Your task to perform on an android device: Show me the alarms in the clock app Image 0: 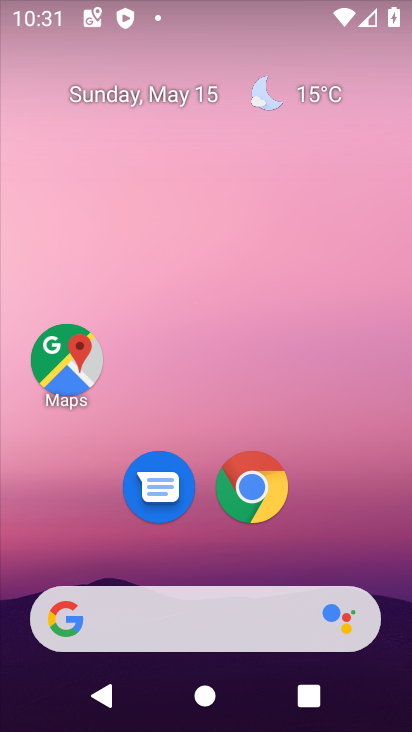
Step 0: click (335, 17)
Your task to perform on an android device: Show me the alarms in the clock app Image 1: 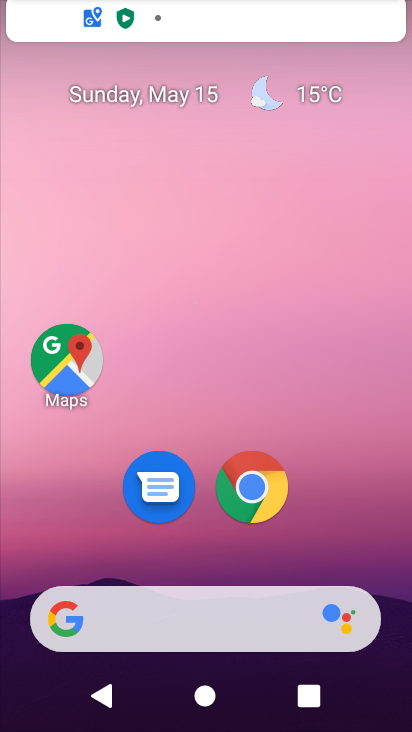
Step 1: drag from (395, 630) to (364, 122)
Your task to perform on an android device: Show me the alarms in the clock app Image 2: 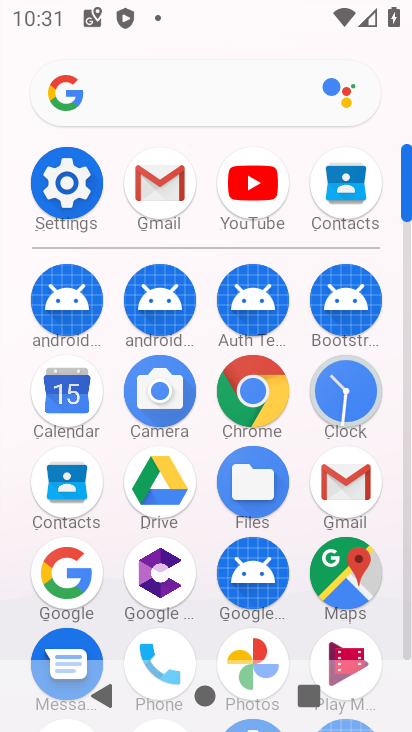
Step 2: click (408, 638)
Your task to perform on an android device: Show me the alarms in the clock app Image 3: 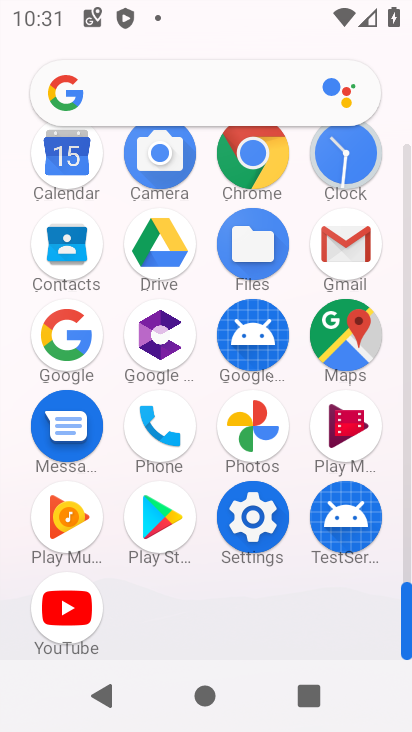
Step 3: click (340, 155)
Your task to perform on an android device: Show me the alarms in the clock app Image 4: 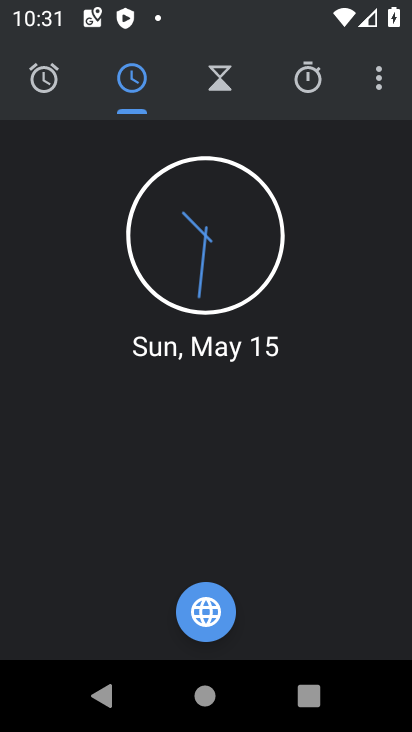
Step 4: click (39, 74)
Your task to perform on an android device: Show me the alarms in the clock app Image 5: 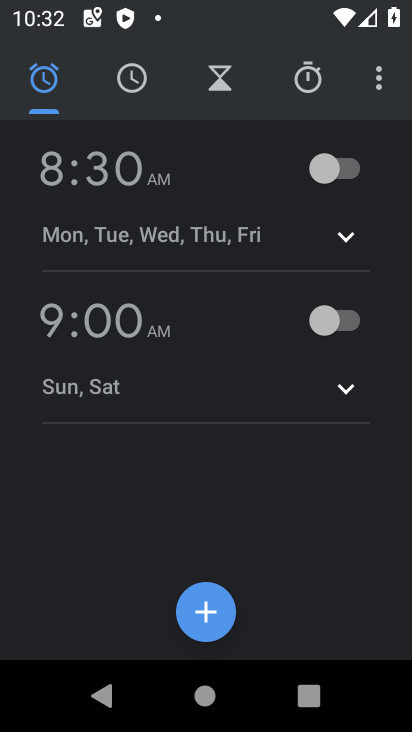
Step 5: task complete